Your task to perform on an android device: Go to Android settings Image 0: 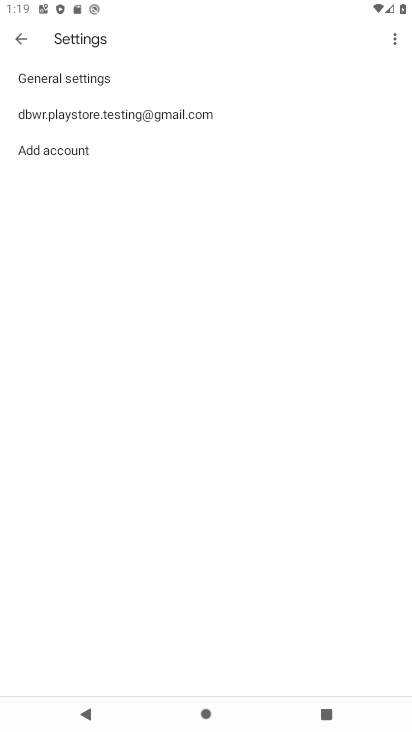
Step 0: press back button
Your task to perform on an android device: Go to Android settings Image 1: 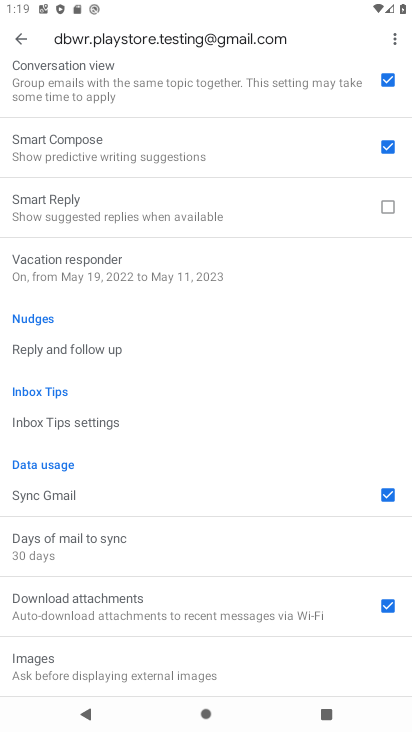
Step 1: press back button
Your task to perform on an android device: Go to Android settings Image 2: 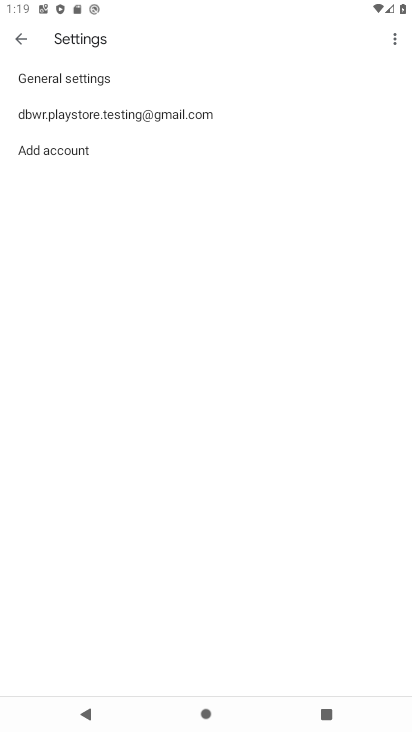
Step 2: press back button
Your task to perform on an android device: Go to Android settings Image 3: 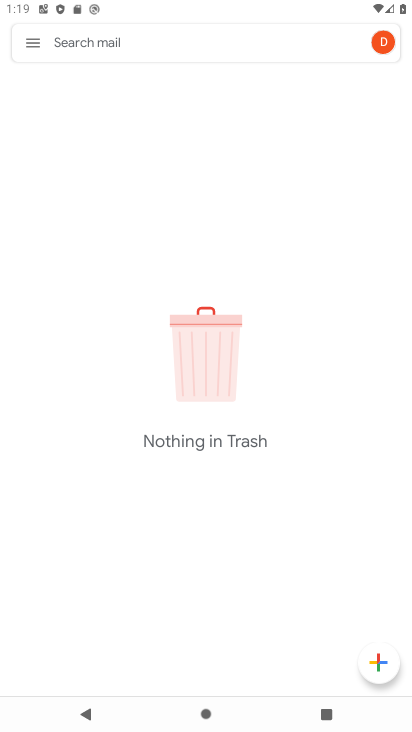
Step 3: press back button
Your task to perform on an android device: Go to Android settings Image 4: 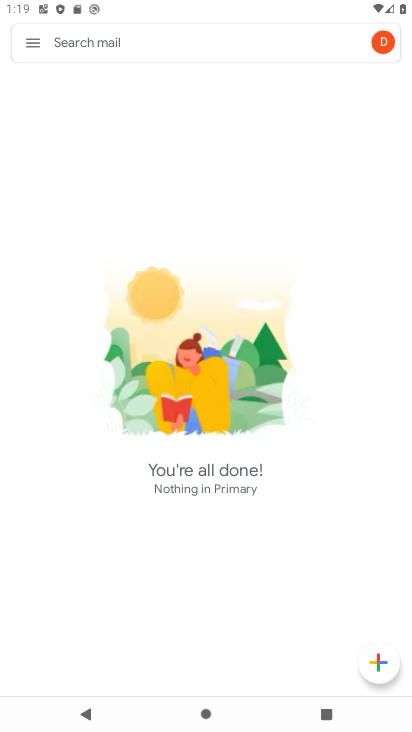
Step 4: press back button
Your task to perform on an android device: Go to Android settings Image 5: 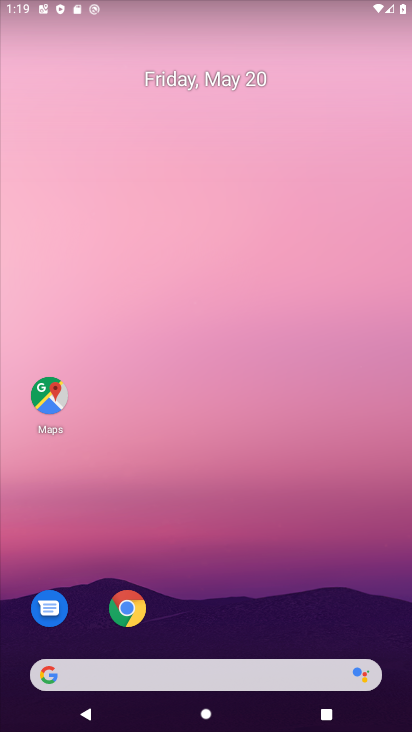
Step 5: drag from (217, 591) to (276, 68)
Your task to perform on an android device: Go to Android settings Image 6: 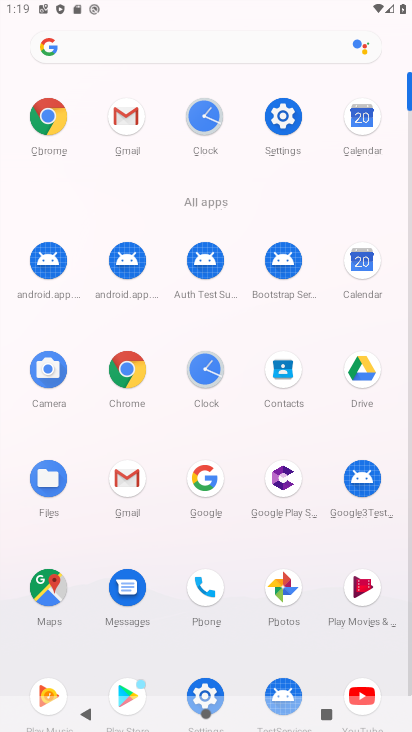
Step 6: click (281, 118)
Your task to perform on an android device: Go to Android settings Image 7: 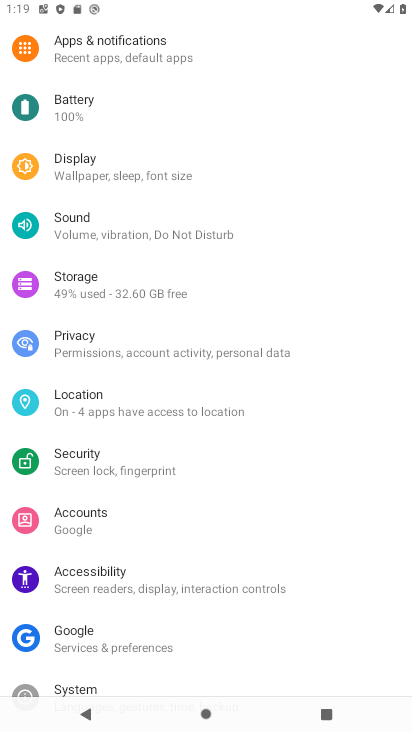
Step 7: drag from (134, 652) to (231, 178)
Your task to perform on an android device: Go to Android settings Image 8: 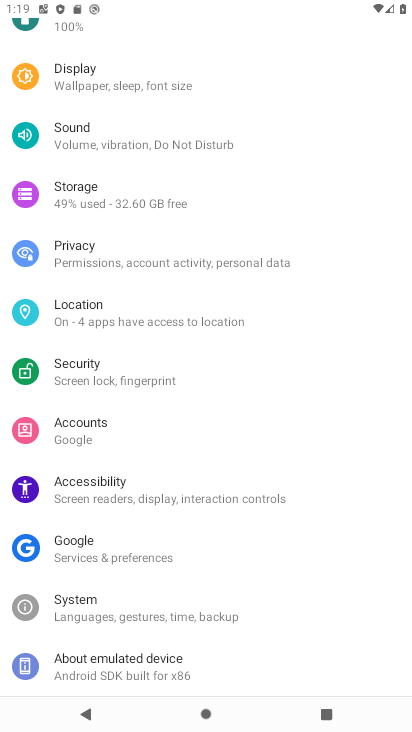
Step 8: click (100, 658)
Your task to perform on an android device: Go to Android settings Image 9: 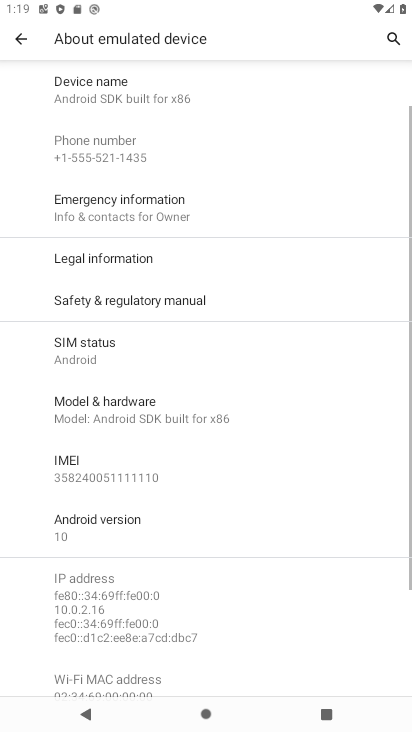
Step 9: click (93, 522)
Your task to perform on an android device: Go to Android settings Image 10: 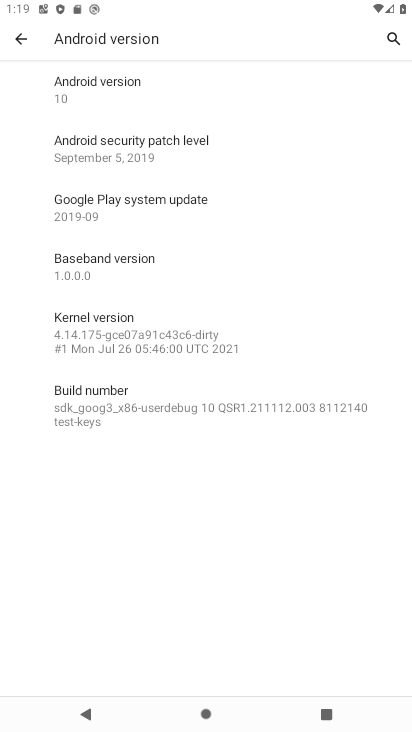
Step 10: task complete